Your task to perform on an android device: turn on data saver in the chrome app Image 0: 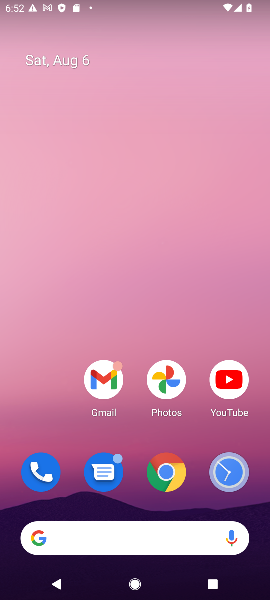
Step 0: click (168, 470)
Your task to perform on an android device: turn on data saver in the chrome app Image 1: 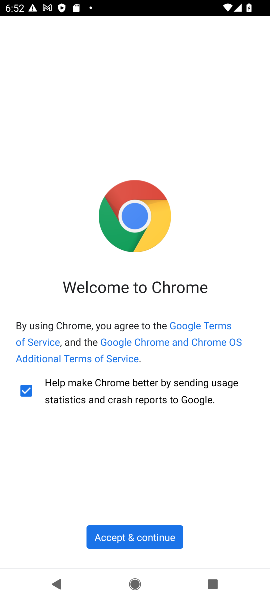
Step 1: click (132, 537)
Your task to perform on an android device: turn on data saver in the chrome app Image 2: 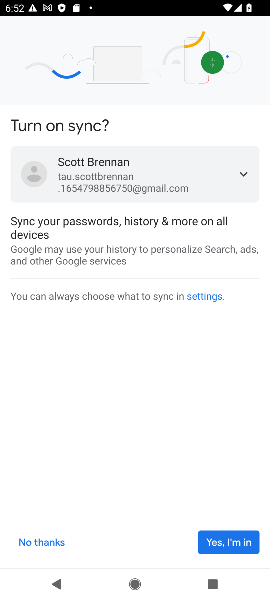
Step 2: click (228, 541)
Your task to perform on an android device: turn on data saver in the chrome app Image 3: 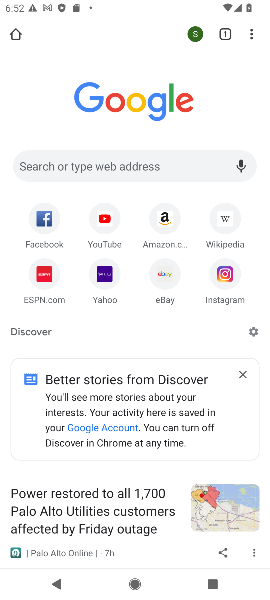
Step 3: click (244, 35)
Your task to perform on an android device: turn on data saver in the chrome app Image 4: 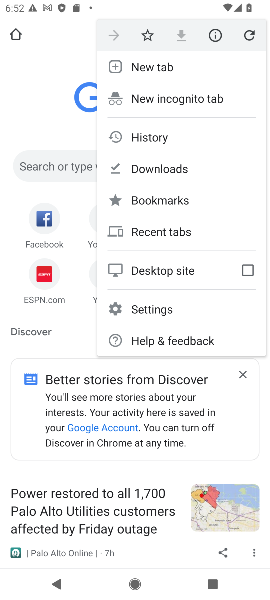
Step 4: click (146, 306)
Your task to perform on an android device: turn on data saver in the chrome app Image 5: 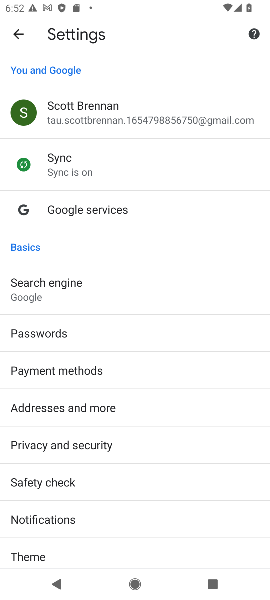
Step 5: drag from (159, 531) to (147, 212)
Your task to perform on an android device: turn on data saver in the chrome app Image 6: 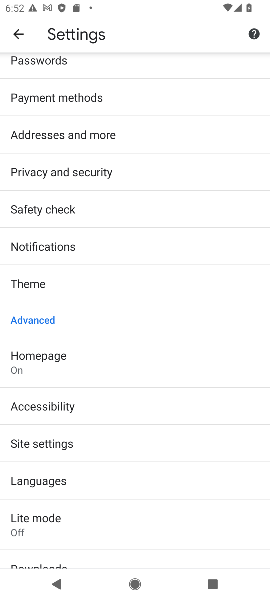
Step 6: click (32, 522)
Your task to perform on an android device: turn on data saver in the chrome app Image 7: 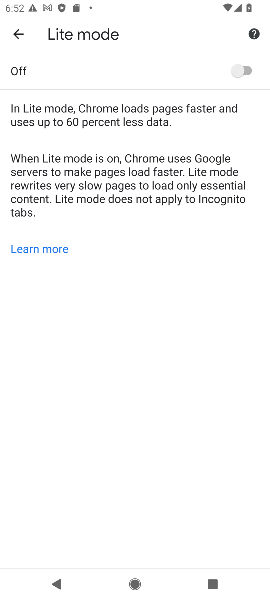
Step 7: click (248, 67)
Your task to perform on an android device: turn on data saver in the chrome app Image 8: 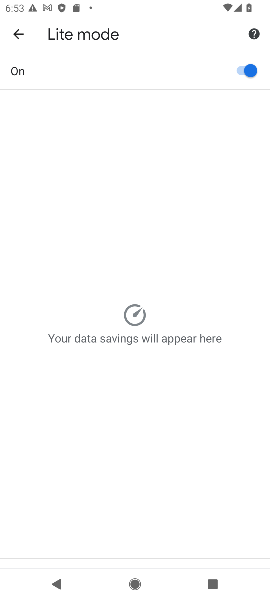
Step 8: task complete